Your task to perform on an android device: Go to Maps Image 0: 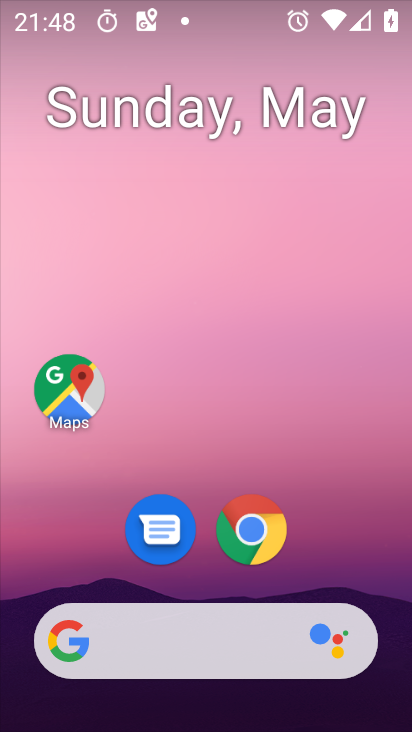
Step 0: click (68, 394)
Your task to perform on an android device: Go to Maps Image 1: 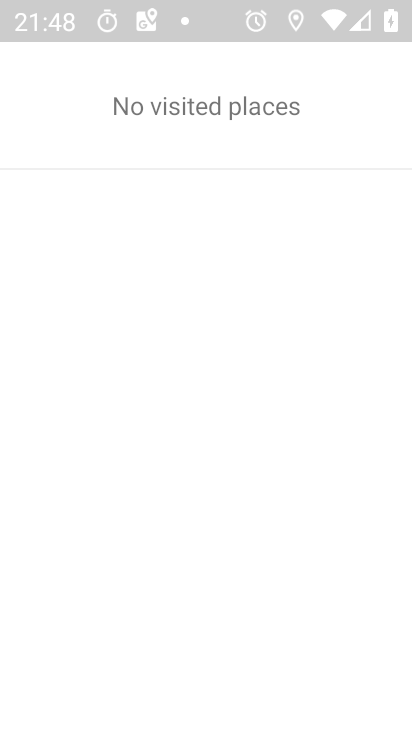
Step 1: task complete